Your task to perform on an android device: empty trash in the gmail app Image 0: 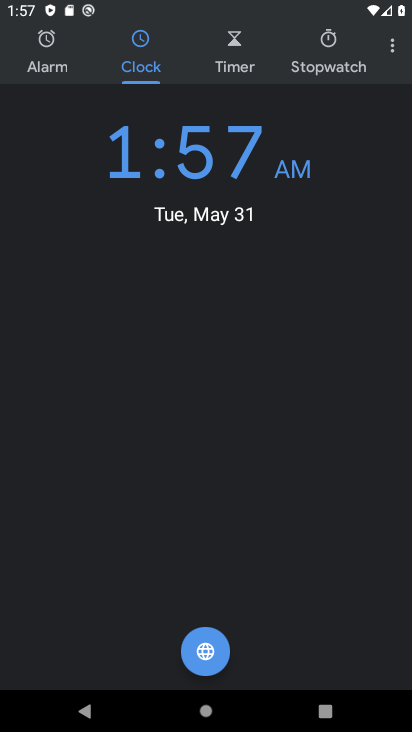
Step 0: press home button
Your task to perform on an android device: empty trash in the gmail app Image 1: 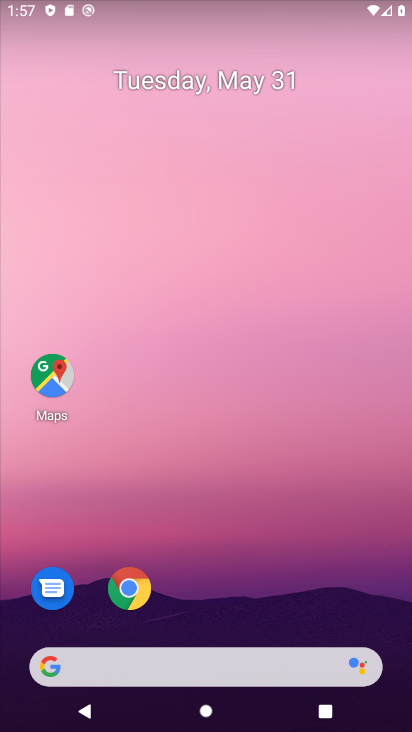
Step 1: drag from (142, 730) to (196, 96)
Your task to perform on an android device: empty trash in the gmail app Image 2: 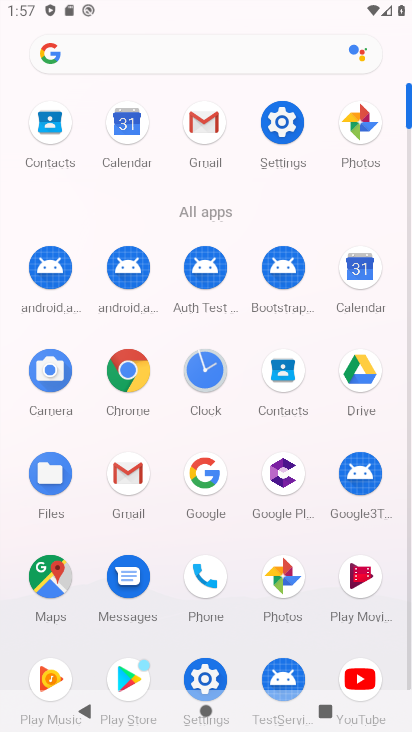
Step 2: click (125, 485)
Your task to perform on an android device: empty trash in the gmail app Image 3: 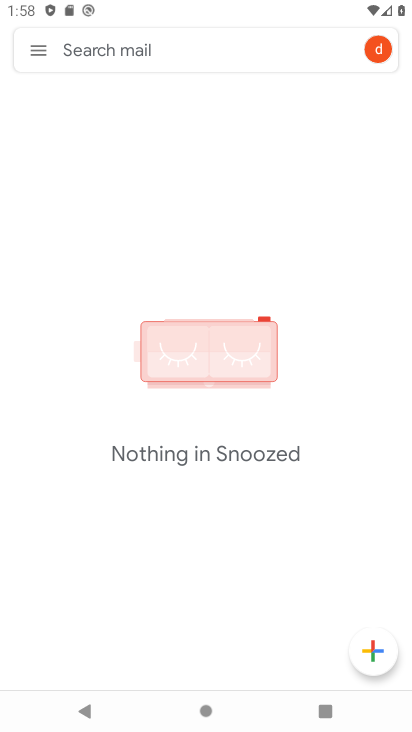
Step 3: click (32, 47)
Your task to perform on an android device: empty trash in the gmail app Image 4: 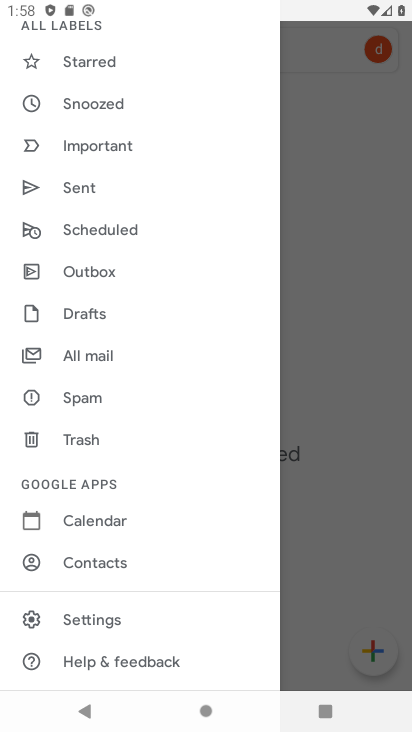
Step 4: click (70, 440)
Your task to perform on an android device: empty trash in the gmail app Image 5: 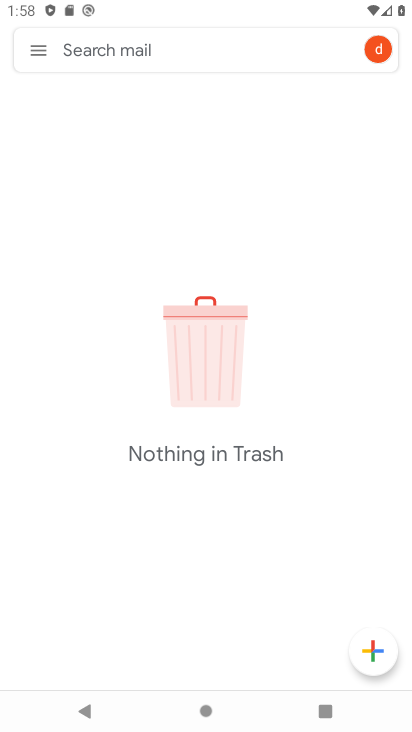
Step 5: task complete